Your task to perform on an android device: Search for "razer blackwidow" on amazon.com, select the first entry, and add it to the cart. Image 0: 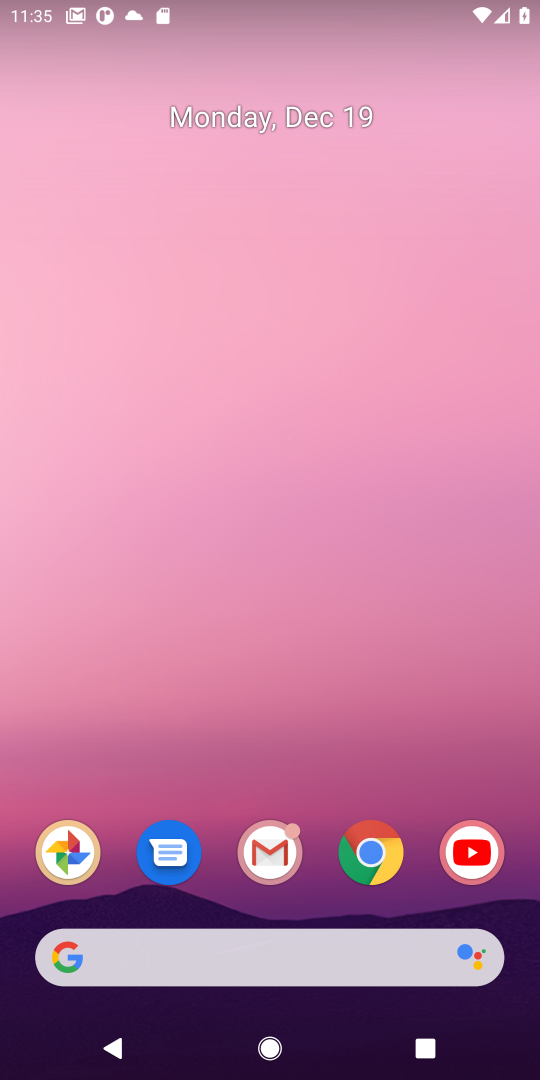
Step 0: click (375, 858)
Your task to perform on an android device: Search for "razer blackwidow" on amazon.com, select the first entry, and add it to the cart. Image 1: 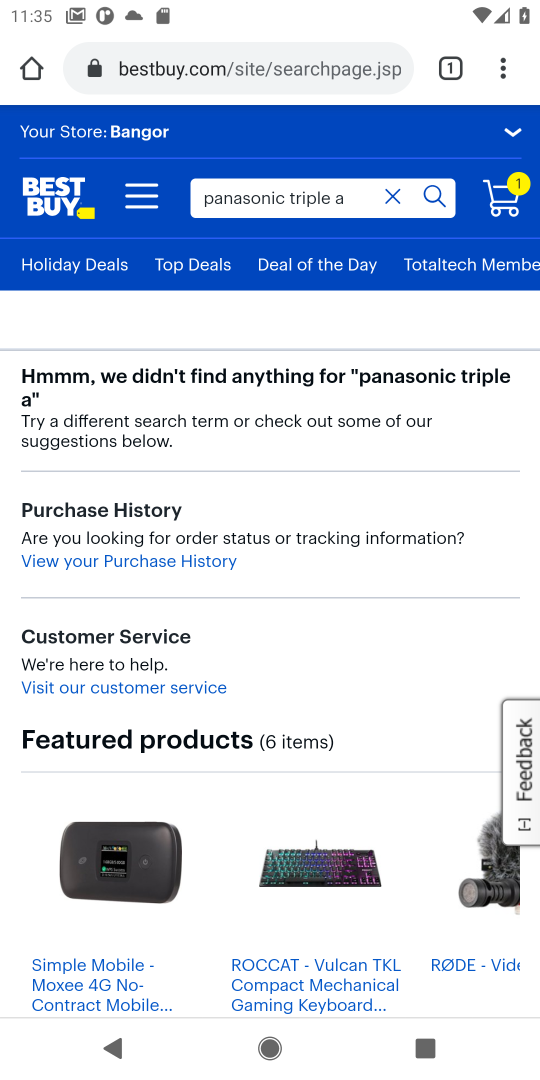
Step 1: click (193, 67)
Your task to perform on an android device: Search for "razer blackwidow" on amazon.com, select the first entry, and add it to the cart. Image 2: 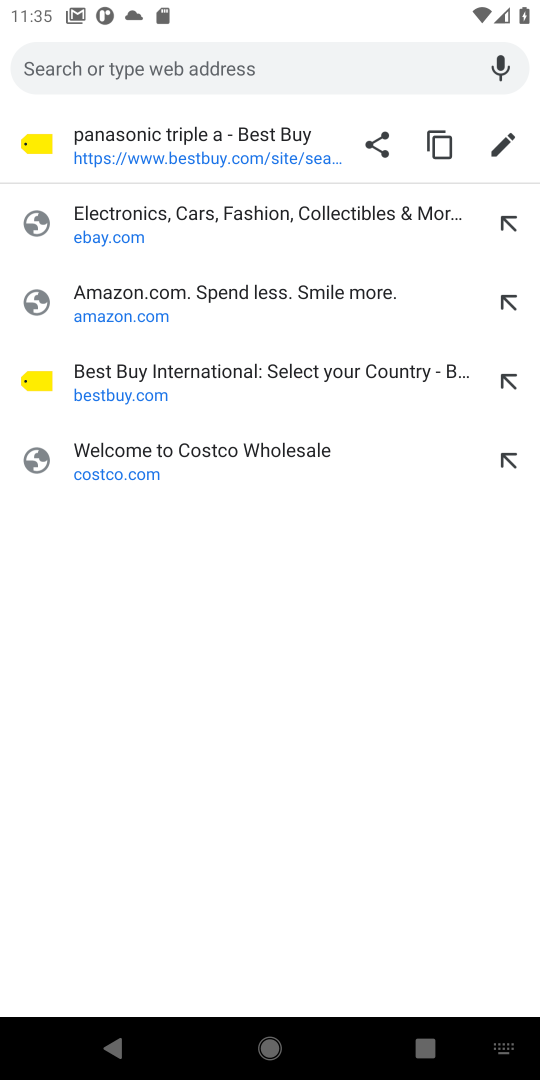
Step 2: click (86, 304)
Your task to perform on an android device: Search for "razer blackwidow" on amazon.com, select the first entry, and add it to the cart. Image 3: 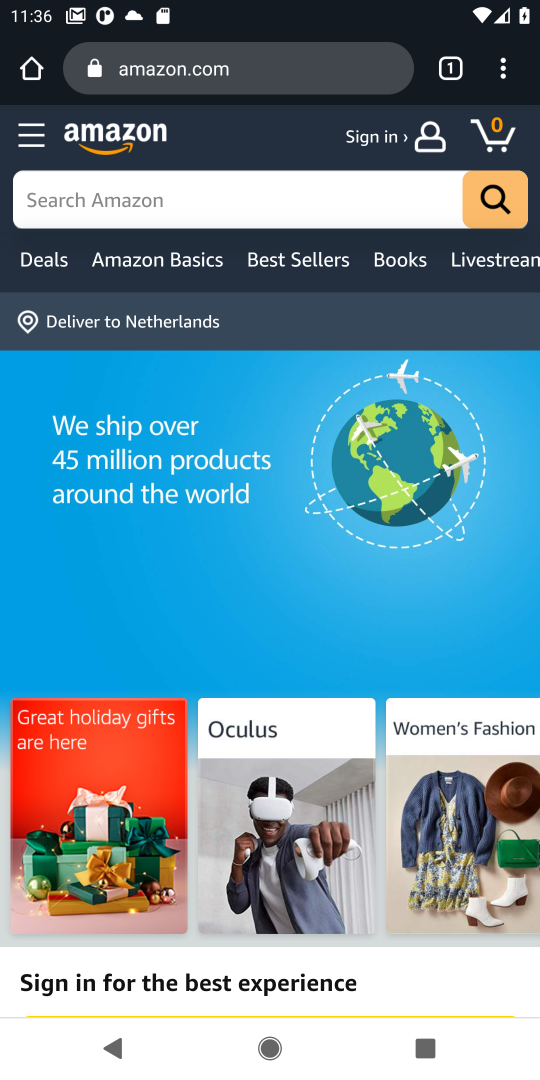
Step 3: click (81, 211)
Your task to perform on an android device: Search for "razer blackwidow" on amazon.com, select the first entry, and add it to the cart. Image 4: 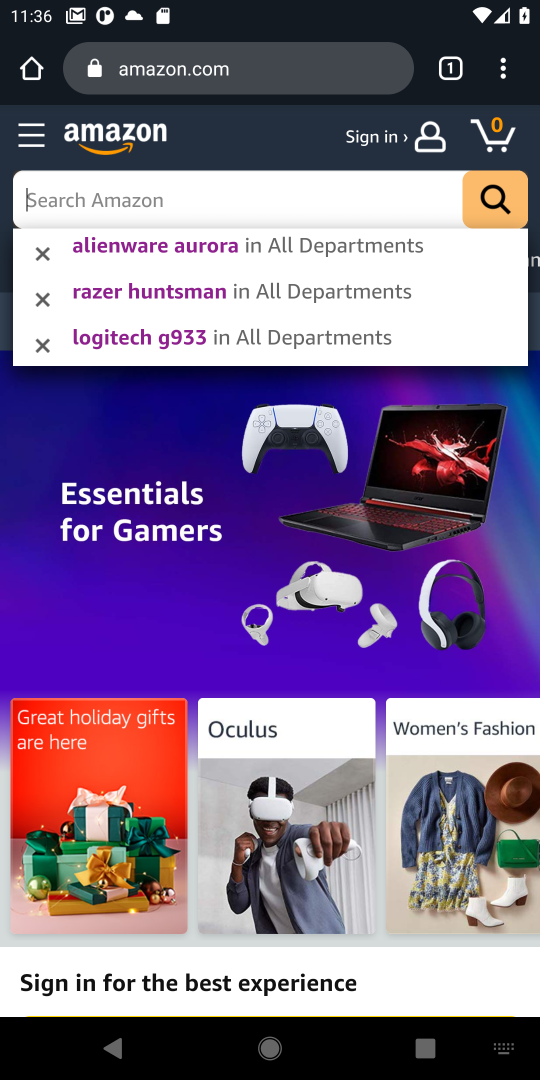
Step 4: type "razer blackwidow"
Your task to perform on an android device: Search for "razer blackwidow" on amazon.com, select the first entry, and add it to the cart. Image 5: 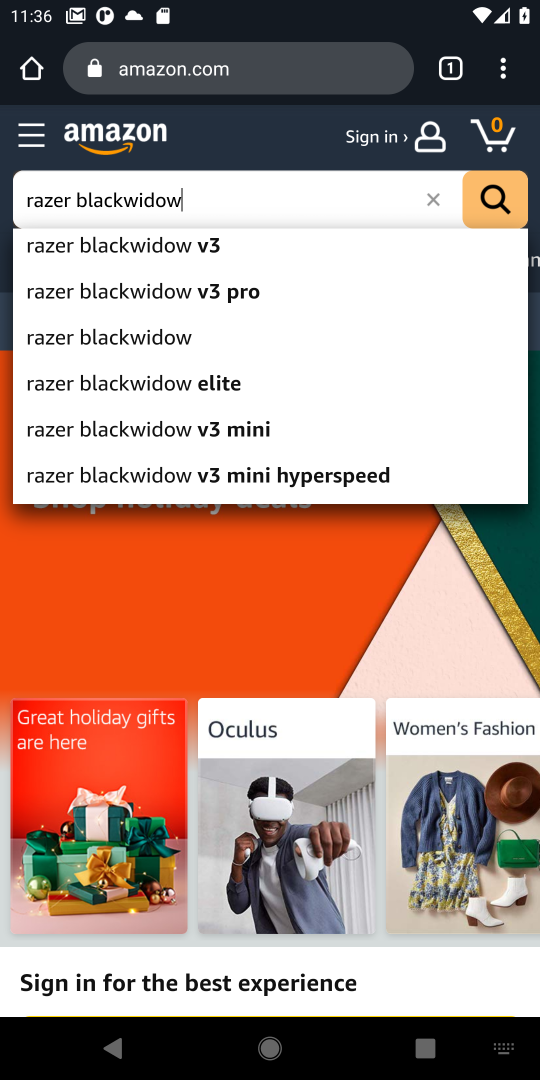
Step 5: click (142, 333)
Your task to perform on an android device: Search for "razer blackwidow" on amazon.com, select the first entry, and add it to the cart. Image 6: 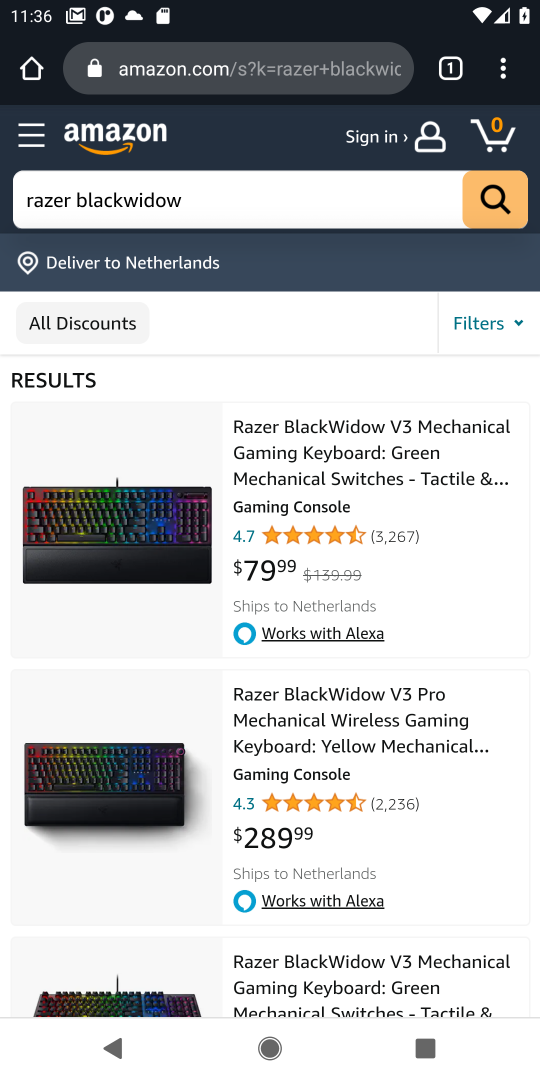
Step 6: click (328, 478)
Your task to perform on an android device: Search for "razer blackwidow" on amazon.com, select the first entry, and add it to the cart. Image 7: 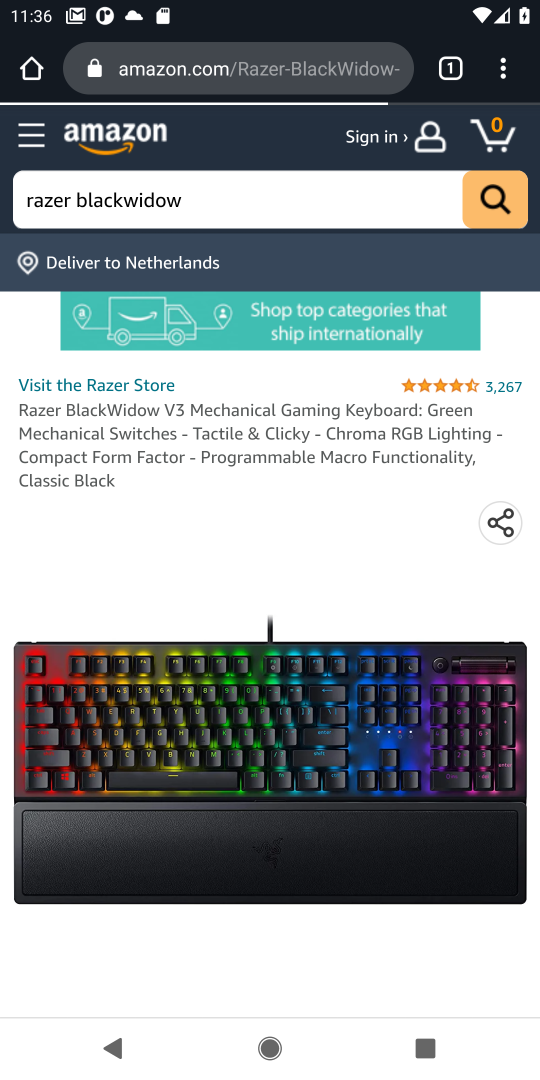
Step 7: drag from (269, 675) to (233, 289)
Your task to perform on an android device: Search for "razer blackwidow" on amazon.com, select the first entry, and add it to the cart. Image 8: 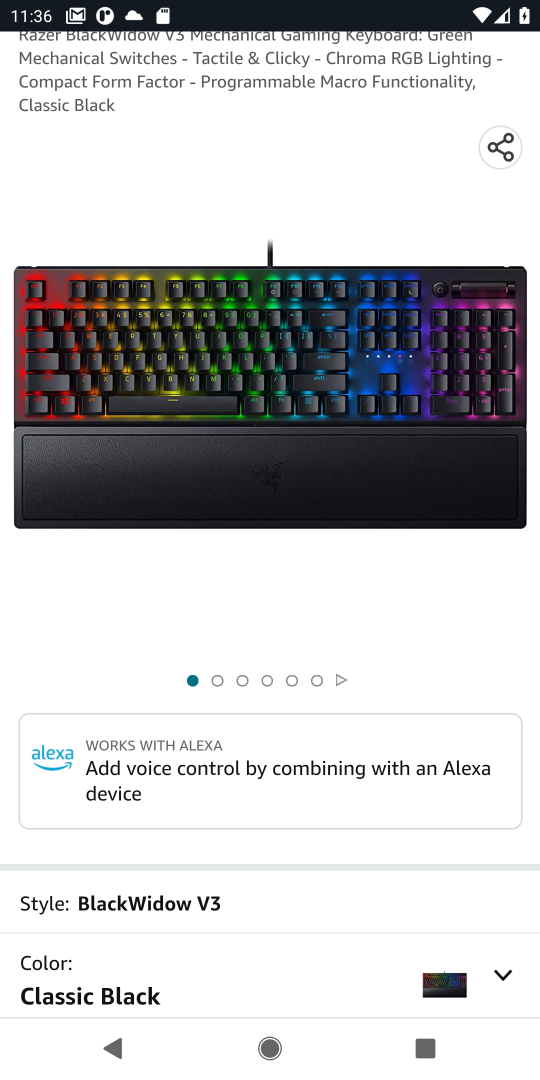
Step 8: drag from (302, 753) to (275, 305)
Your task to perform on an android device: Search for "razer blackwidow" on amazon.com, select the first entry, and add it to the cart. Image 9: 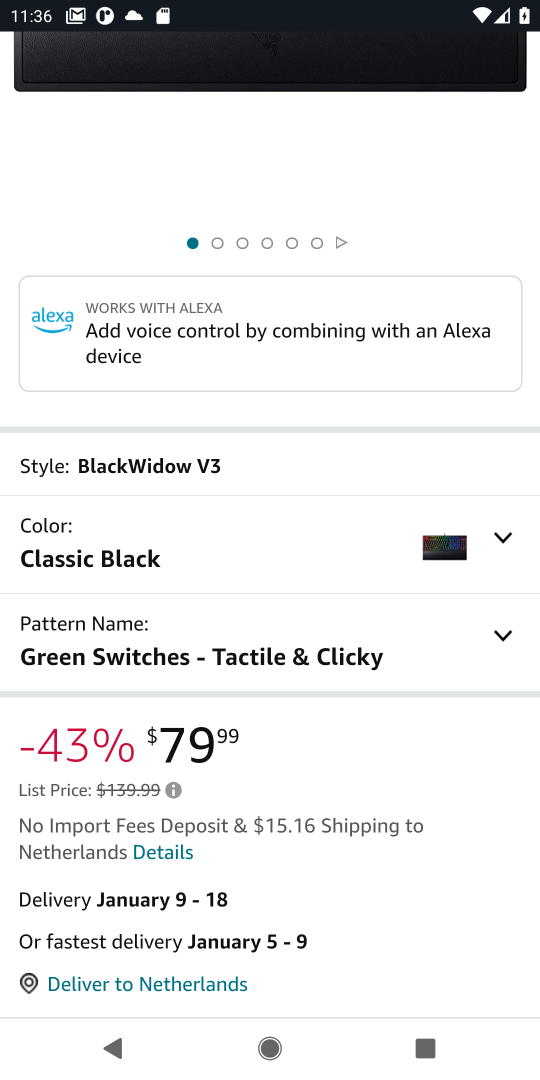
Step 9: drag from (276, 660) to (254, 288)
Your task to perform on an android device: Search for "razer blackwidow" on amazon.com, select the first entry, and add it to the cart. Image 10: 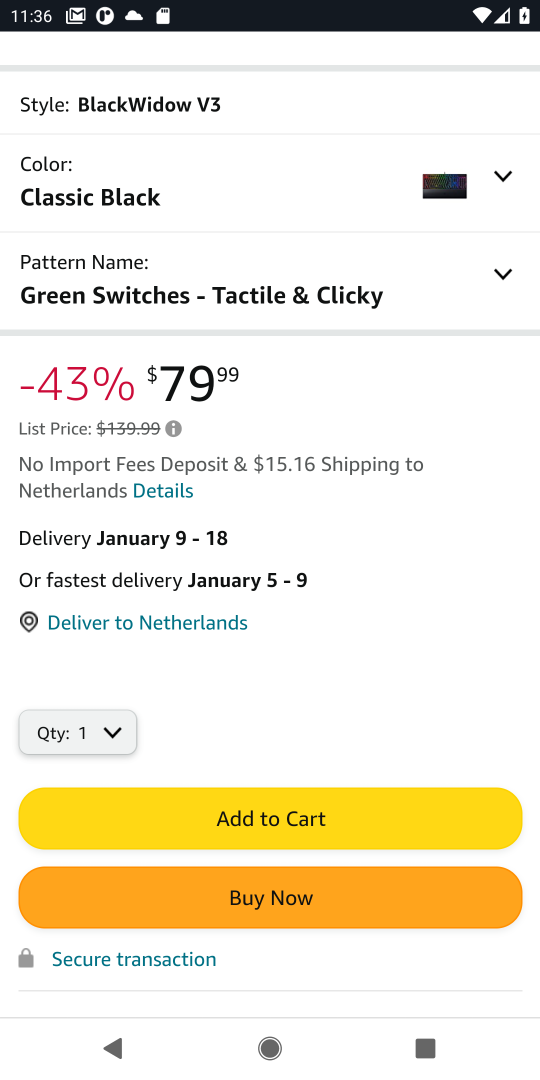
Step 10: click (247, 811)
Your task to perform on an android device: Search for "razer blackwidow" on amazon.com, select the first entry, and add it to the cart. Image 11: 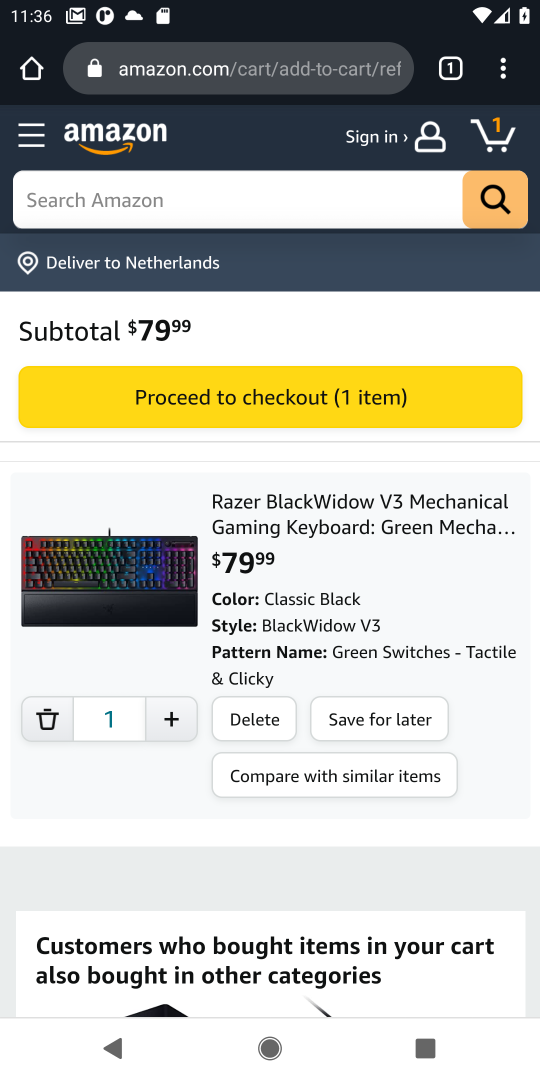
Step 11: task complete